Your task to perform on an android device: Find coffee shops on Maps Image 0: 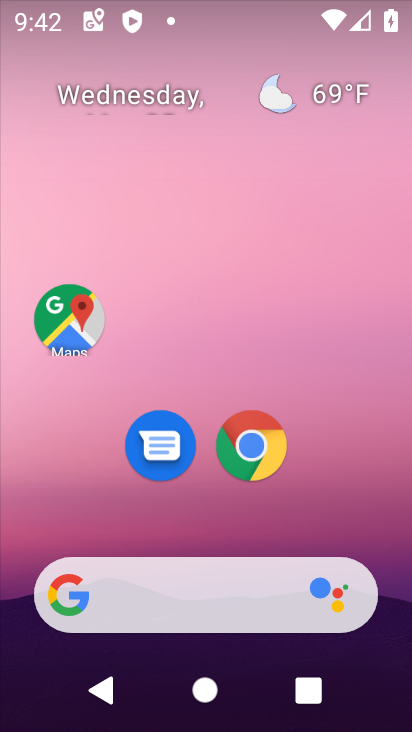
Step 0: drag from (326, 440) to (307, 10)
Your task to perform on an android device: Find coffee shops on Maps Image 1: 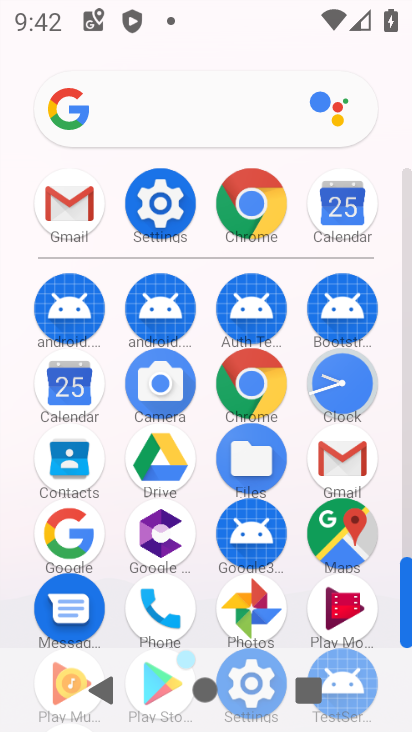
Step 1: click (356, 531)
Your task to perform on an android device: Find coffee shops on Maps Image 2: 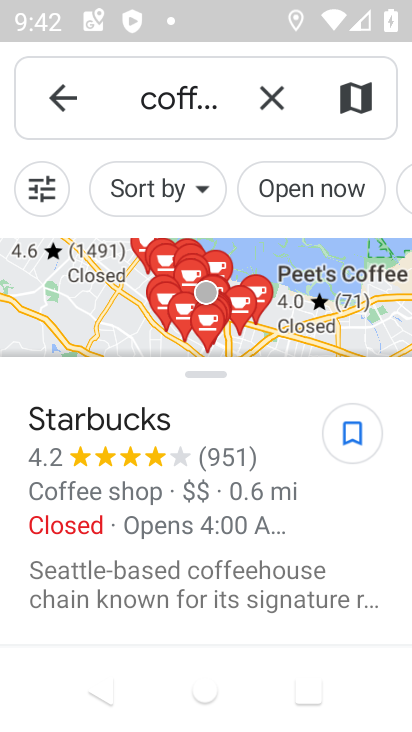
Step 2: click (51, 93)
Your task to perform on an android device: Find coffee shops on Maps Image 3: 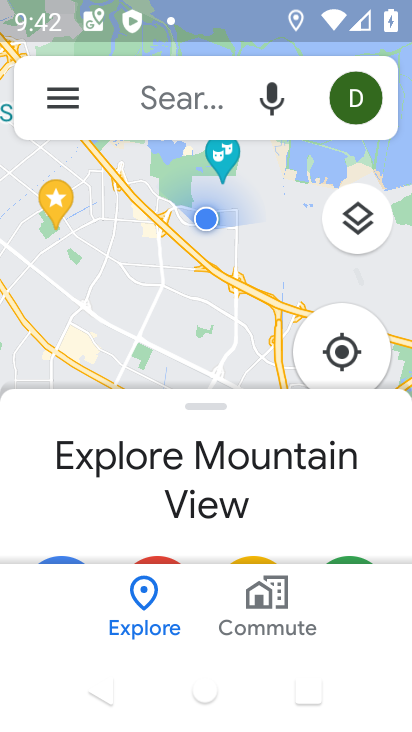
Step 3: click (103, 94)
Your task to perform on an android device: Find coffee shops on Maps Image 4: 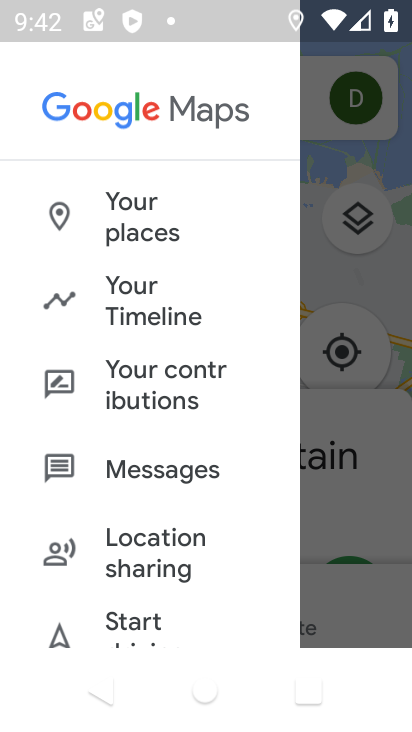
Step 4: click (283, 53)
Your task to perform on an android device: Find coffee shops on Maps Image 5: 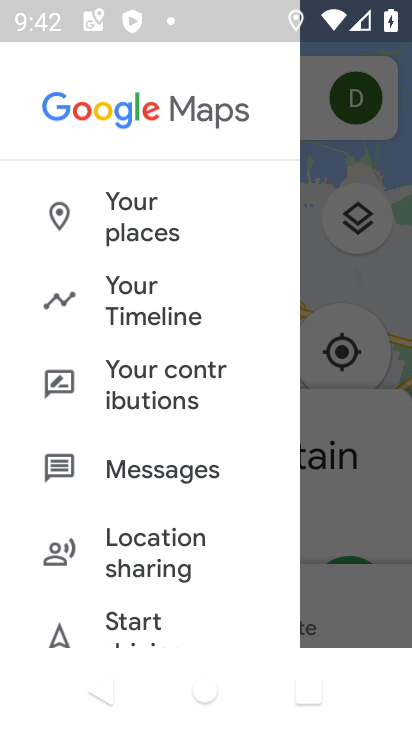
Step 5: click (326, 123)
Your task to perform on an android device: Find coffee shops on Maps Image 6: 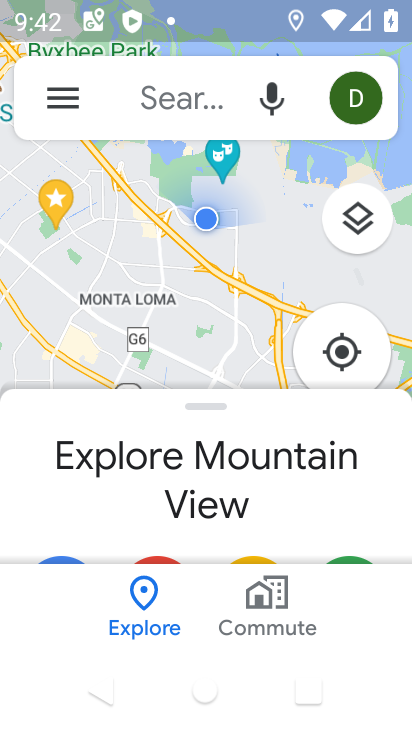
Step 6: click (193, 106)
Your task to perform on an android device: Find coffee shops on Maps Image 7: 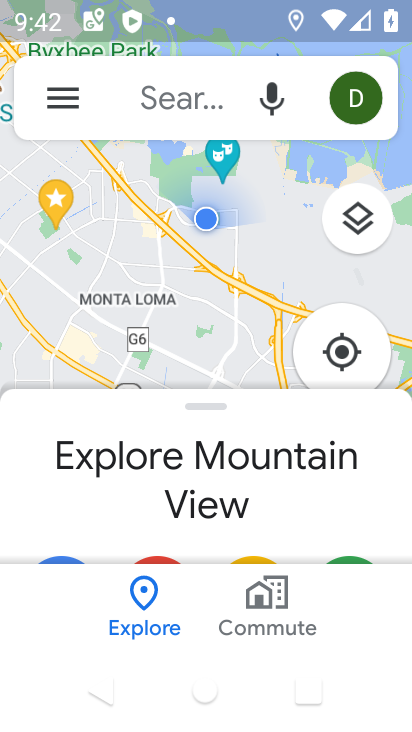
Step 7: click (193, 106)
Your task to perform on an android device: Find coffee shops on Maps Image 8: 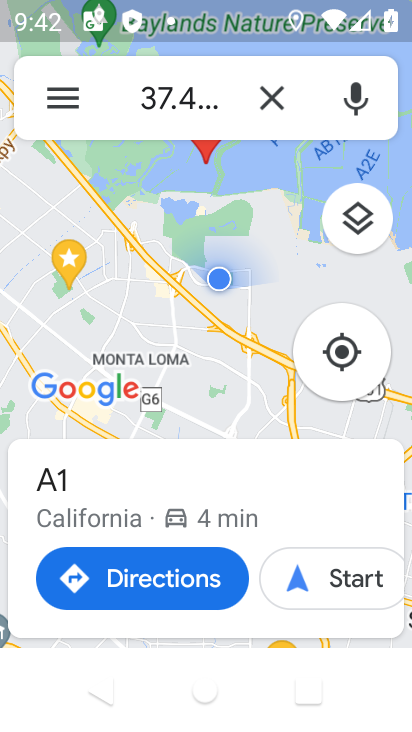
Step 8: type "coffee shops "
Your task to perform on an android device: Find coffee shops on Maps Image 9: 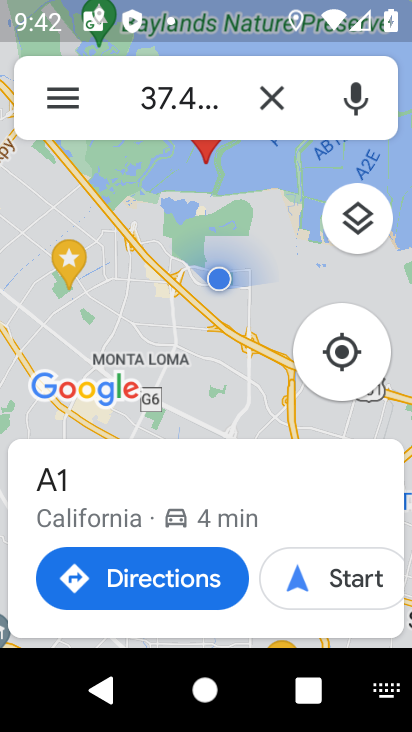
Step 9: click (261, 95)
Your task to perform on an android device: Find coffee shops on Maps Image 10: 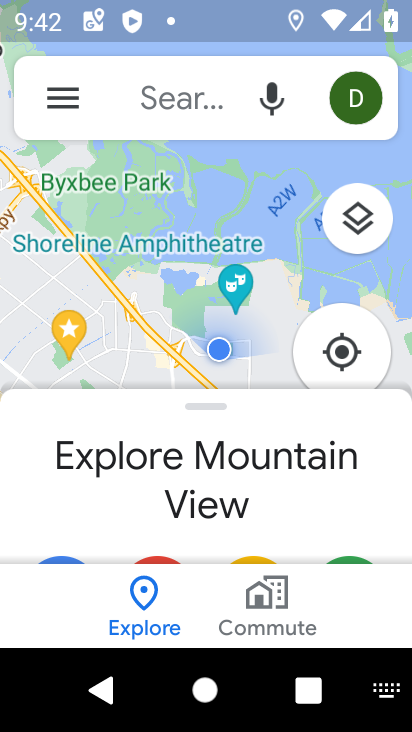
Step 10: click (159, 99)
Your task to perform on an android device: Find coffee shops on Maps Image 11: 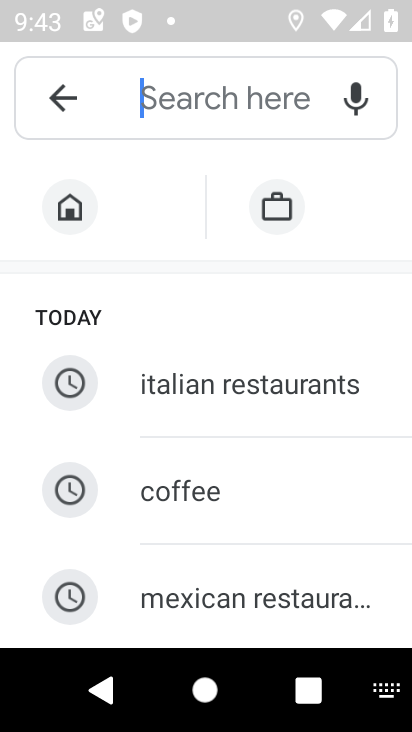
Step 11: type "coffee shops "
Your task to perform on an android device: Find coffee shops on Maps Image 12: 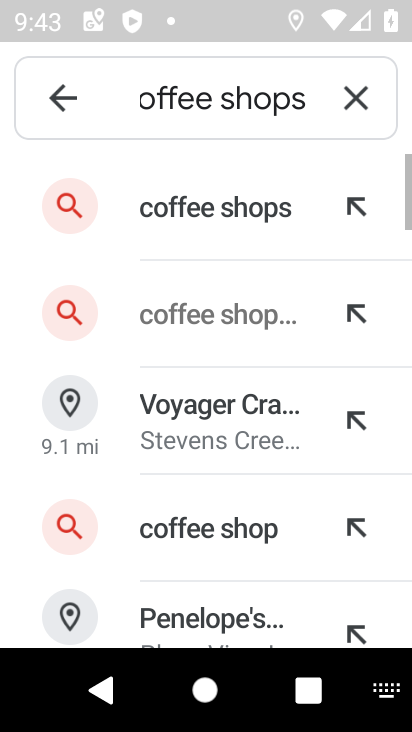
Step 12: click (177, 207)
Your task to perform on an android device: Find coffee shops on Maps Image 13: 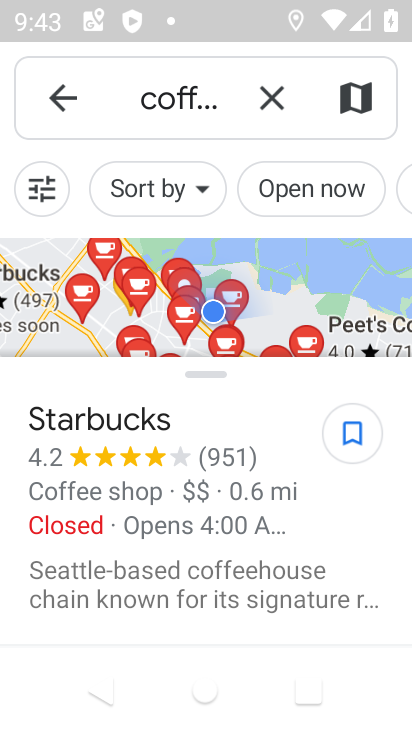
Step 13: task complete